Your task to perform on an android device: What's the weather going to be this weekend? Image 0: 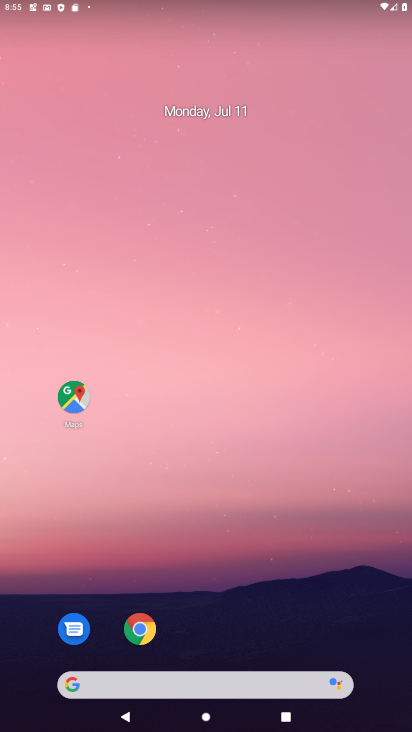
Step 0: drag from (307, 622) to (301, 90)
Your task to perform on an android device: What's the weather going to be this weekend? Image 1: 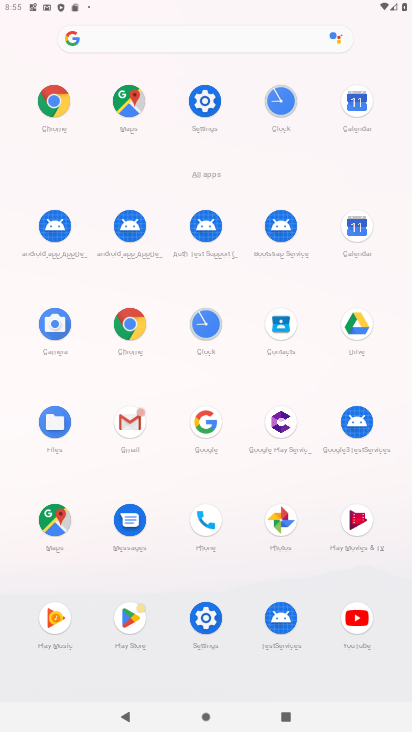
Step 1: drag from (145, 168) to (156, 697)
Your task to perform on an android device: What's the weather going to be this weekend? Image 2: 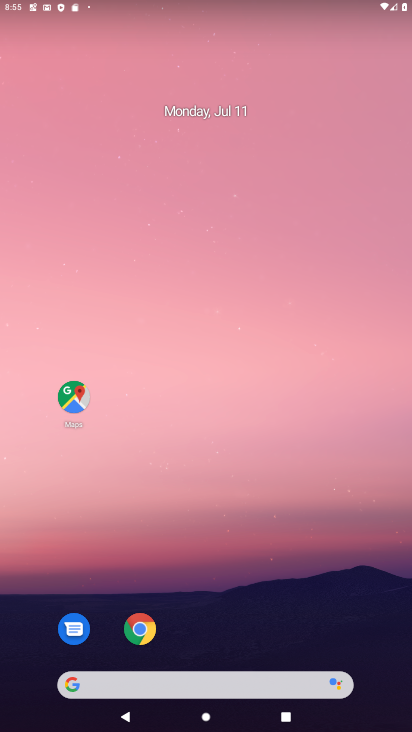
Step 2: drag from (207, 600) to (151, 0)
Your task to perform on an android device: What's the weather going to be this weekend? Image 3: 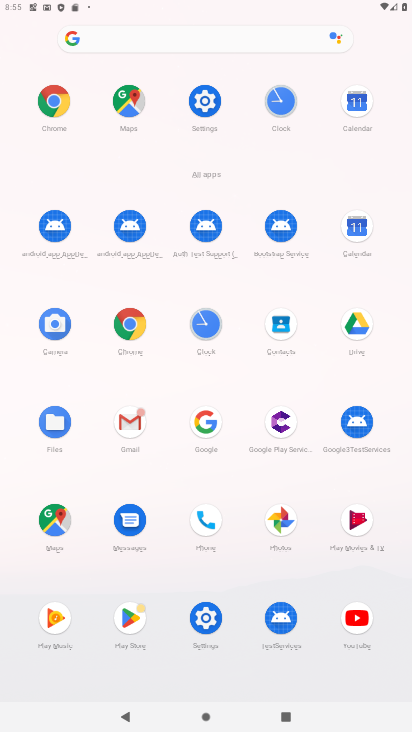
Step 3: click (128, 377)
Your task to perform on an android device: What's the weather going to be this weekend? Image 4: 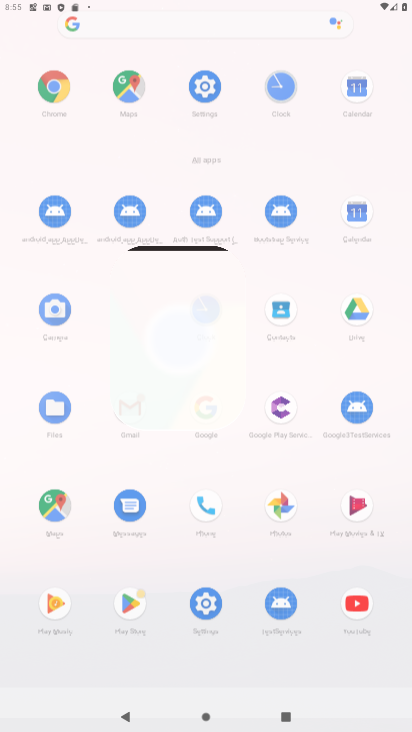
Step 4: click (130, 331)
Your task to perform on an android device: What's the weather going to be this weekend? Image 5: 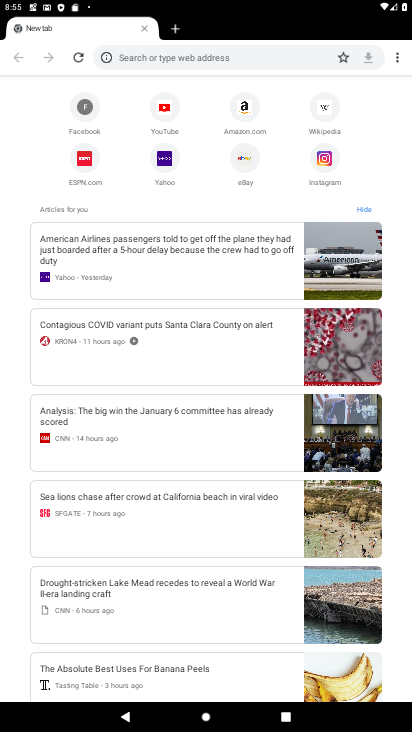
Step 5: click (228, 64)
Your task to perform on an android device: What's the weather going to be this weekend? Image 6: 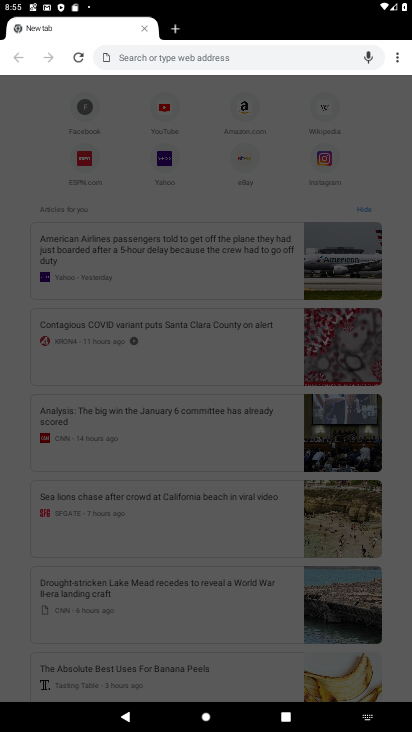
Step 6: type "weather this weekend"
Your task to perform on an android device: What's the weather going to be this weekend? Image 7: 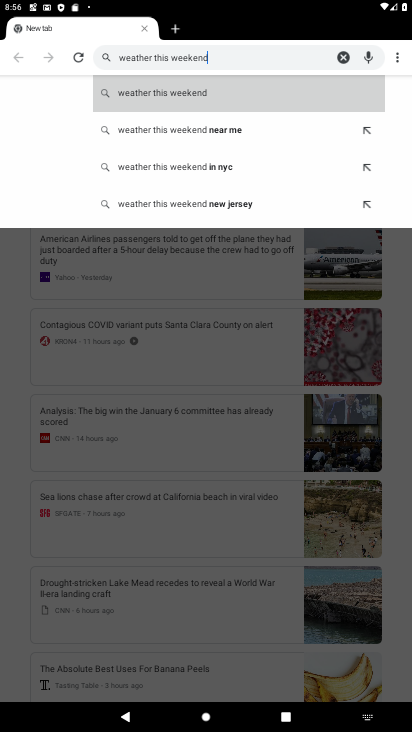
Step 7: click (254, 99)
Your task to perform on an android device: What's the weather going to be this weekend? Image 8: 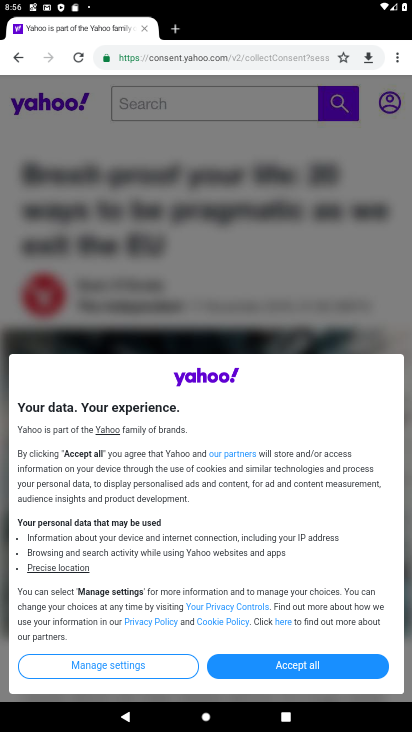
Step 8: click (221, 255)
Your task to perform on an android device: What's the weather going to be this weekend? Image 9: 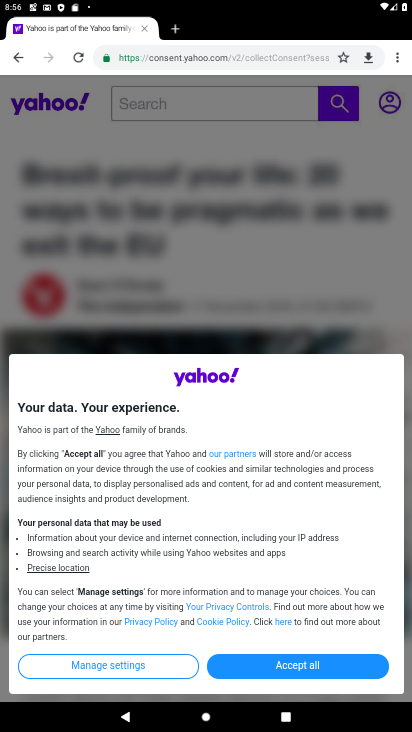
Step 9: click (279, 666)
Your task to perform on an android device: What's the weather going to be this weekend? Image 10: 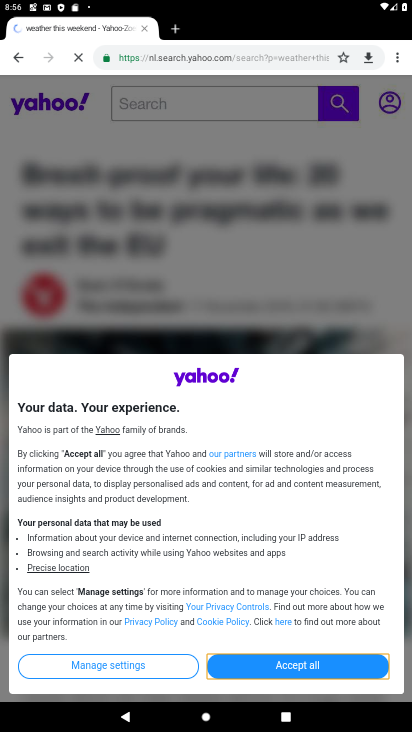
Step 10: click (280, 665)
Your task to perform on an android device: What's the weather going to be this weekend? Image 11: 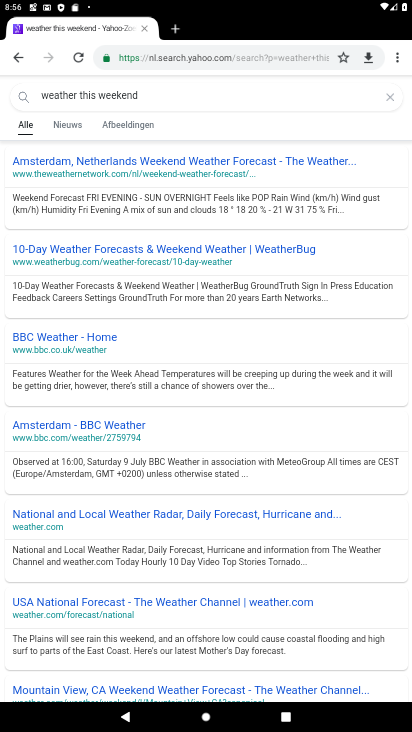
Step 11: task complete